Your task to perform on an android device: Open Wikipedia Image 0: 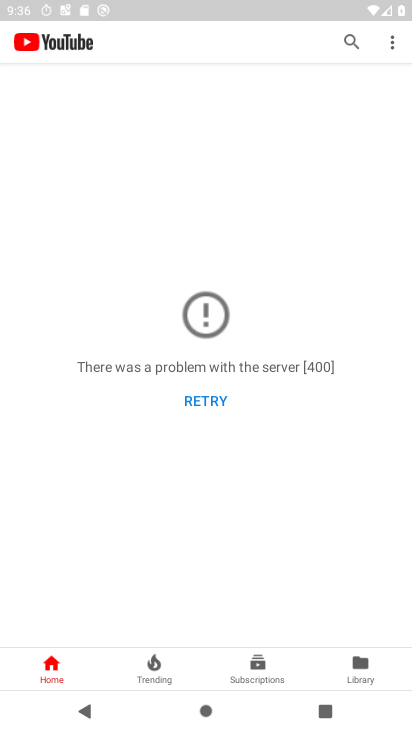
Step 0: press home button
Your task to perform on an android device: Open Wikipedia Image 1: 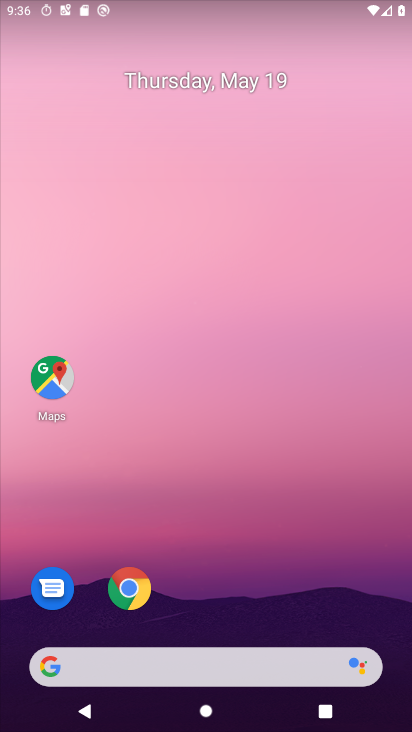
Step 1: click (131, 594)
Your task to perform on an android device: Open Wikipedia Image 2: 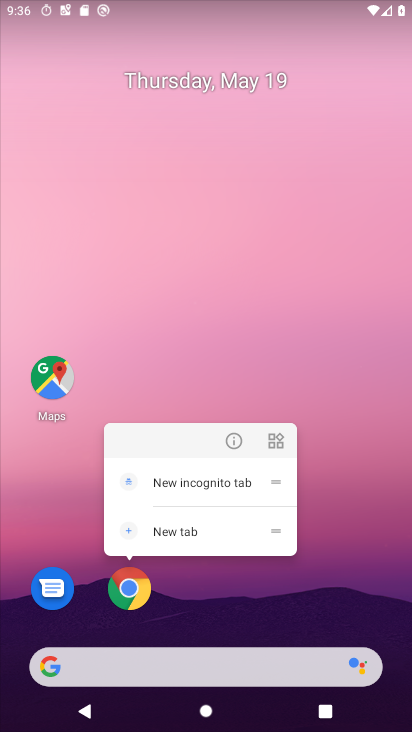
Step 2: click (132, 587)
Your task to perform on an android device: Open Wikipedia Image 3: 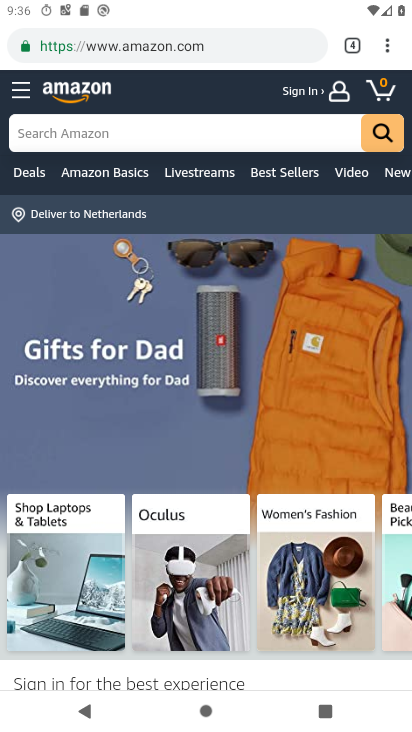
Step 3: drag from (385, 49) to (324, 87)
Your task to perform on an android device: Open Wikipedia Image 4: 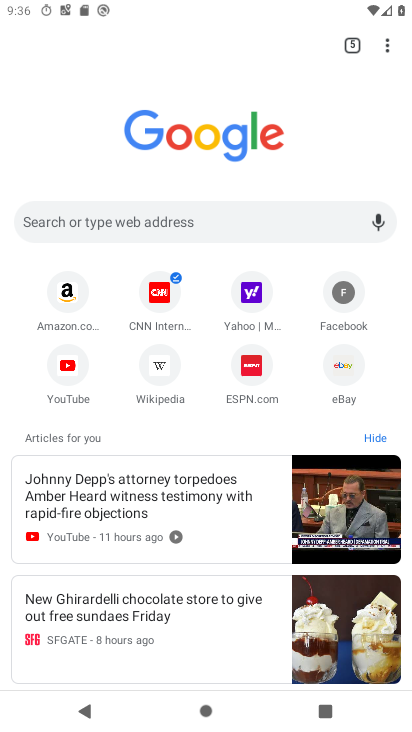
Step 4: click (158, 389)
Your task to perform on an android device: Open Wikipedia Image 5: 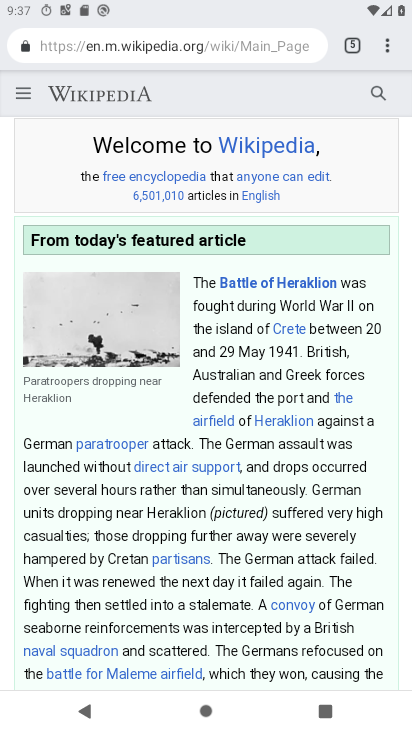
Step 5: task complete